Your task to perform on an android device: Go to settings Image 0: 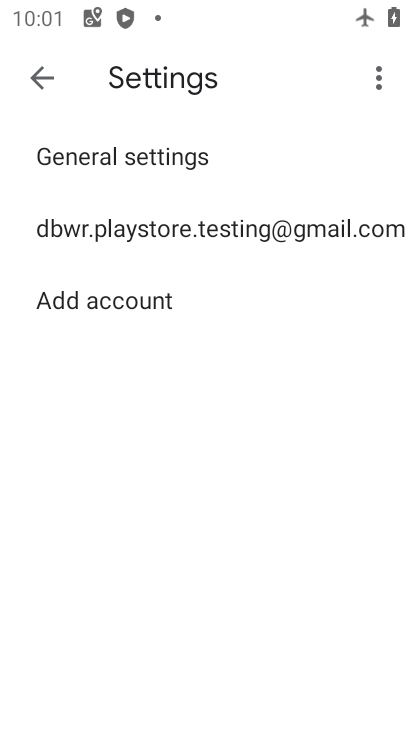
Step 0: press home button
Your task to perform on an android device: Go to settings Image 1: 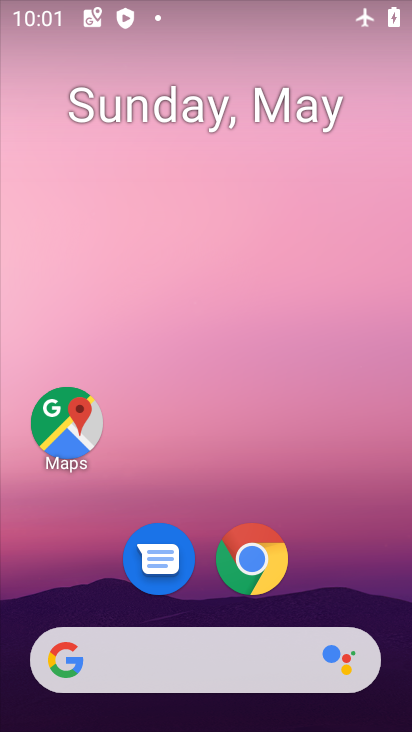
Step 1: drag from (207, 616) to (111, 17)
Your task to perform on an android device: Go to settings Image 2: 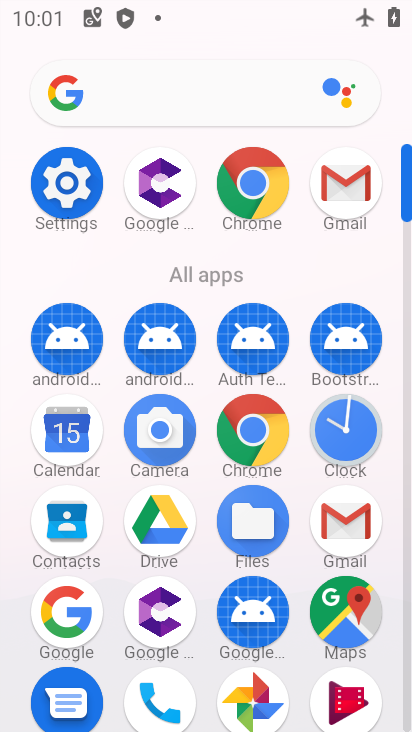
Step 2: click (64, 191)
Your task to perform on an android device: Go to settings Image 3: 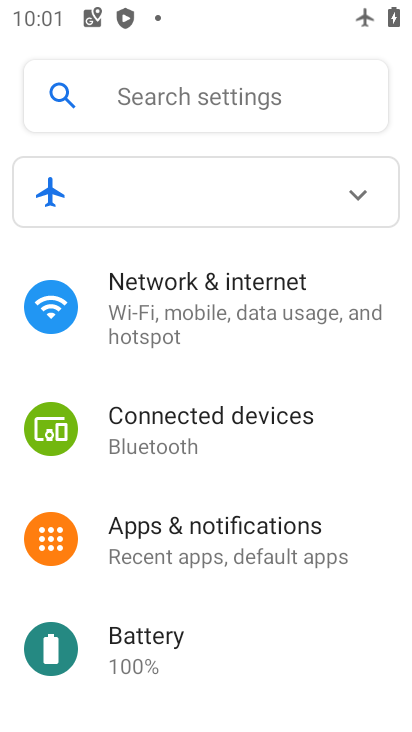
Step 3: task complete